Your task to perform on an android device: Go to calendar. Show me events next week Image 0: 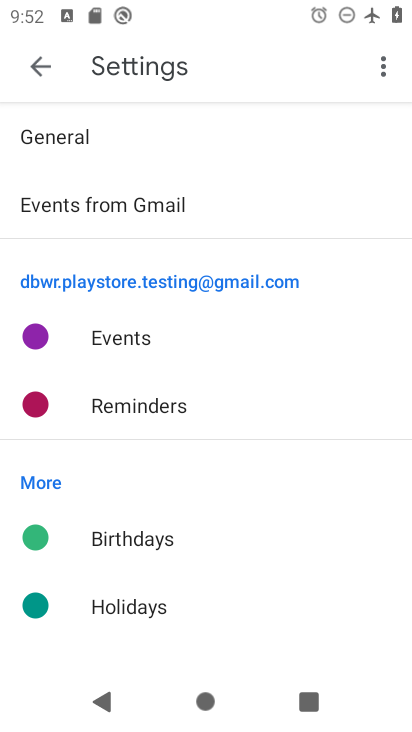
Step 0: press home button
Your task to perform on an android device: Go to calendar. Show me events next week Image 1: 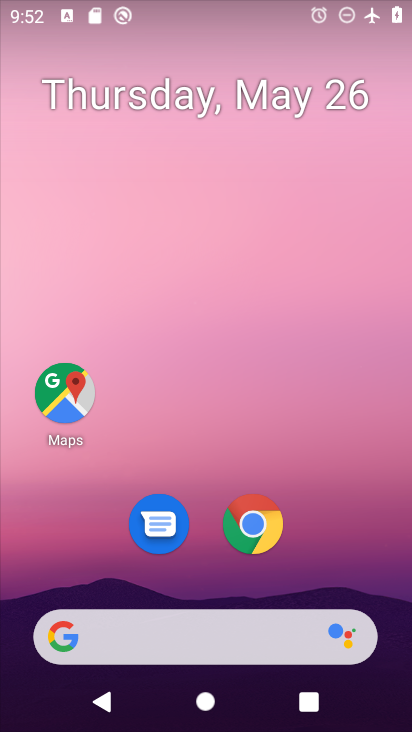
Step 1: drag from (324, 579) to (356, 49)
Your task to perform on an android device: Go to calendar. Show me events next week Image 2: 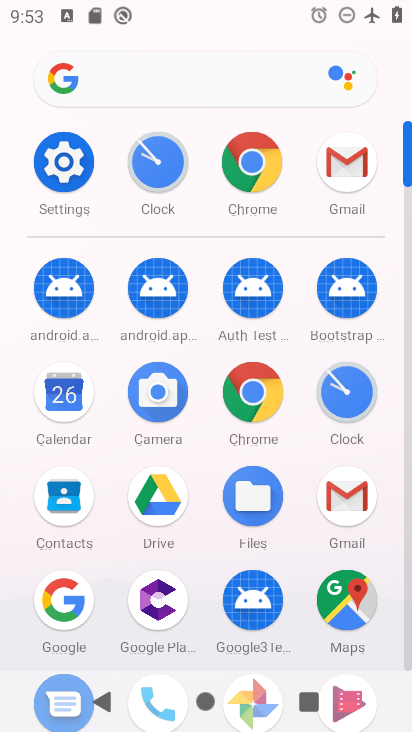
Step 2: click (58, 386)
Your task to perform on an android device: Go to calendar. Show me events next week Image 3: 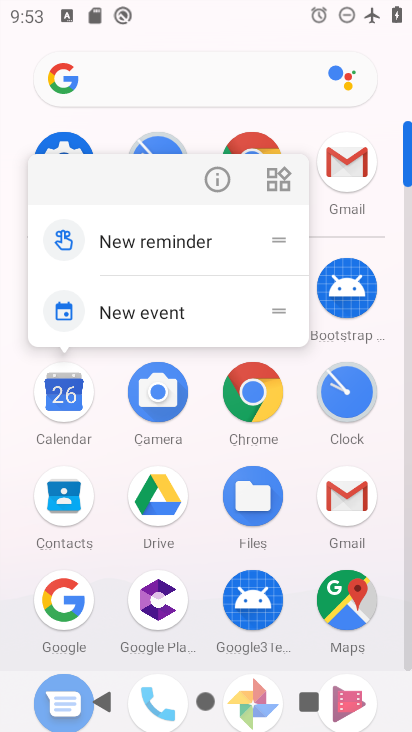
Step 3: click (63, 386)
Your task to perform on an android device: Go to calendar. Show me events next week Image 4: 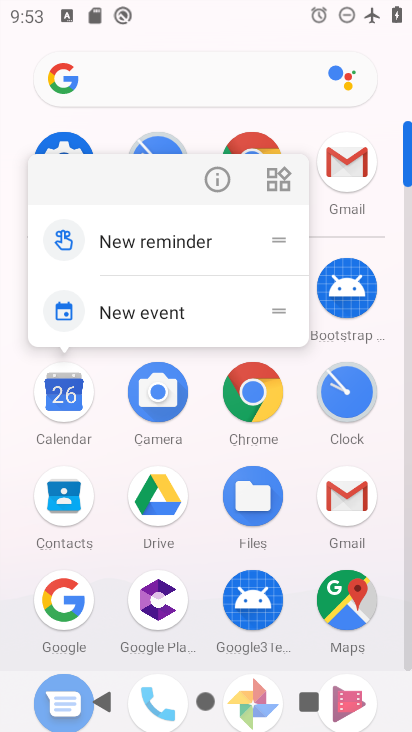
Step 4: click (63, 385)
Your task to perform on an android device: Go to calendar. Show me events next week Image 5: 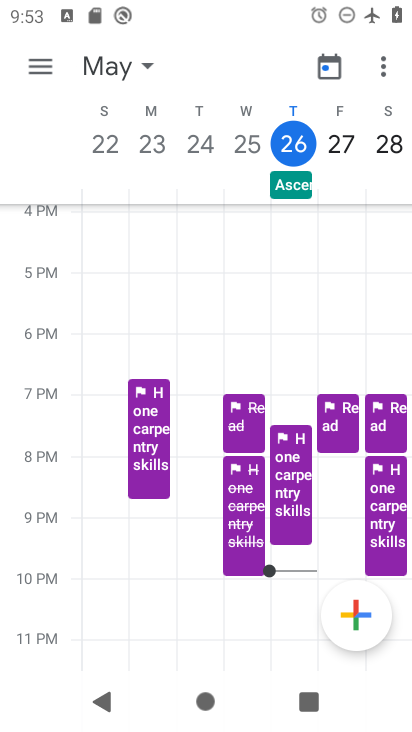
Step 5: task complete